Your task to perform on an android device: Open wifi settings Image 0: 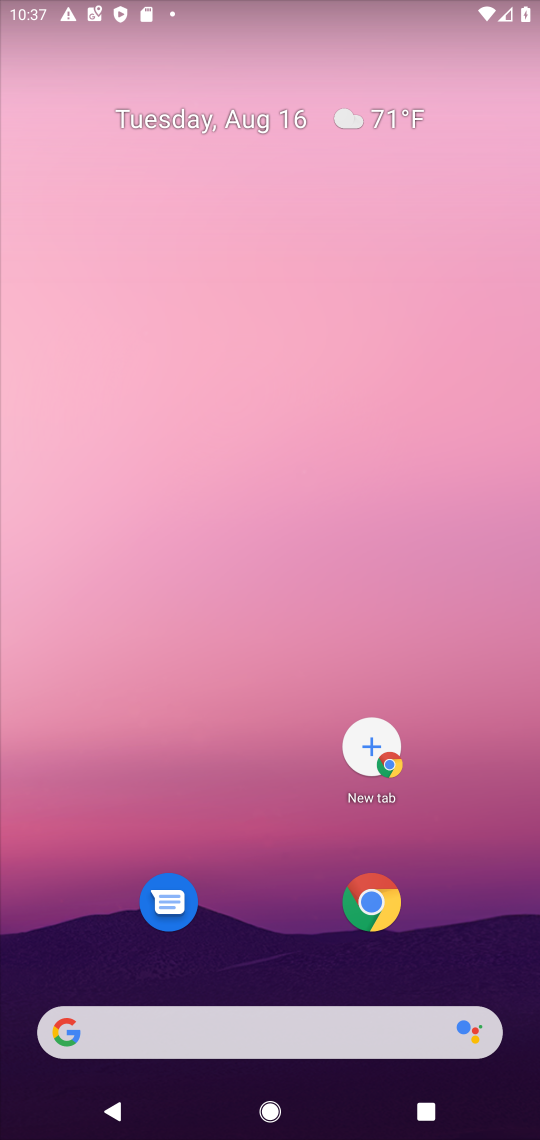
Step 0: drag from (325, 856) to (333, 197)
Your task to perform on an android device: Open wifi settings Image 1: 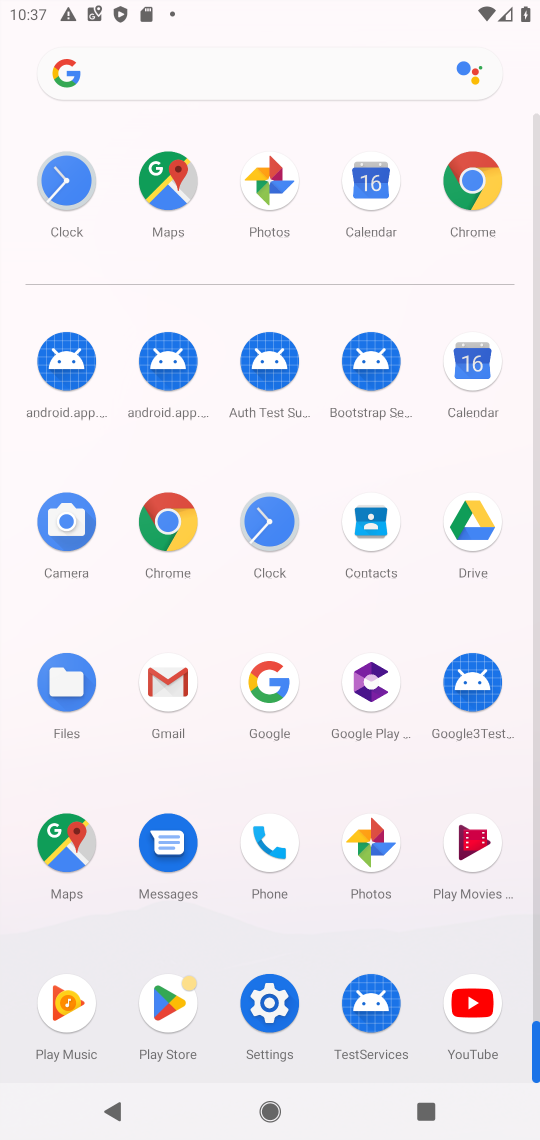
Step 1: click (273, 996)
Your task to perform on an android device: Open wifi settings Image 2: 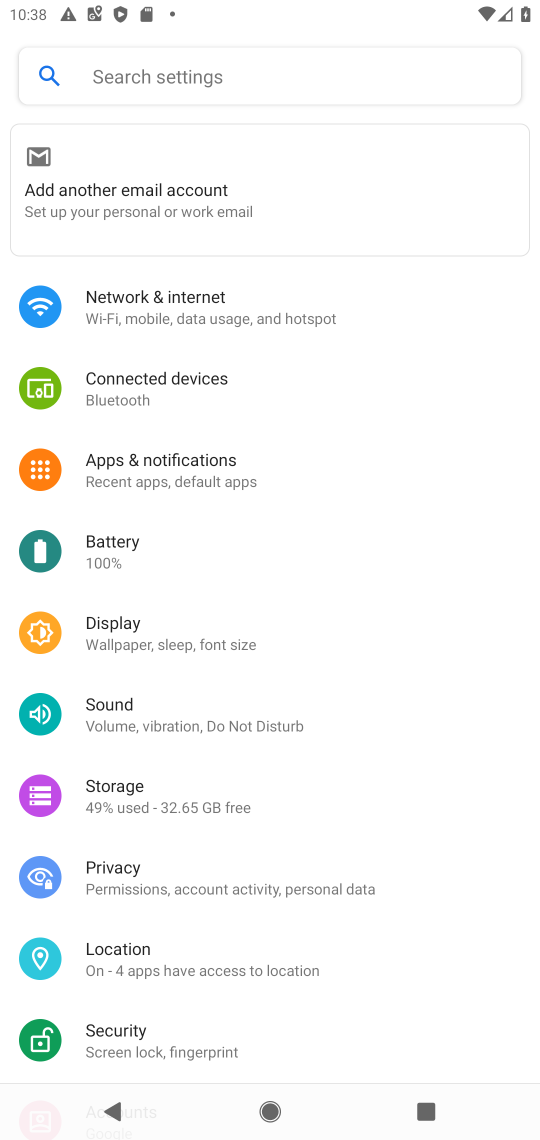
Step 2: click (158, 308)
Your task to perform on an android device: Open wifi settings Image 3: 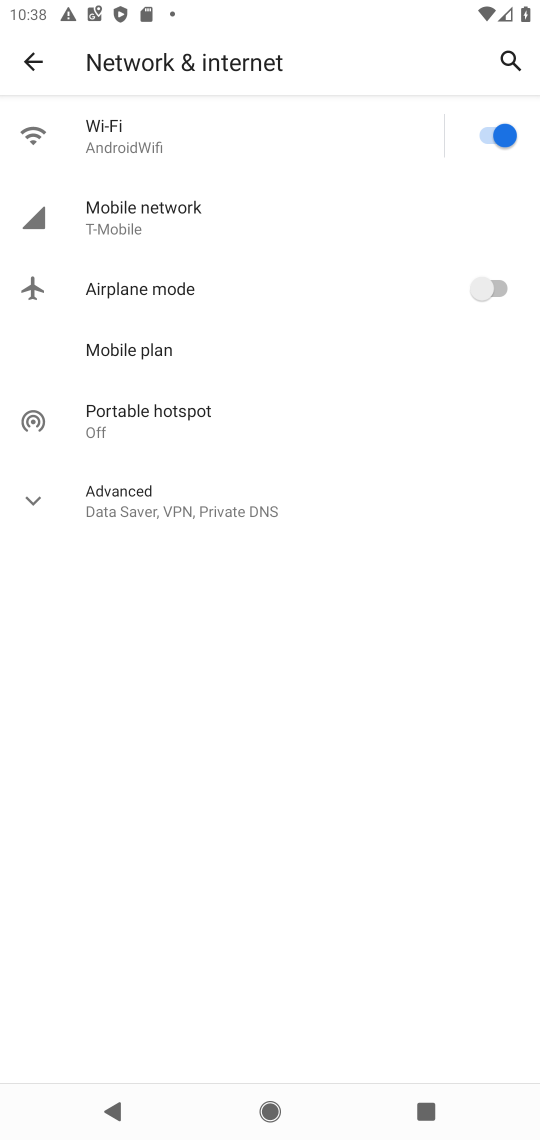
Step 3: click (105, 137)
Your task to perform on an android device: Open wifi settings Image 4: 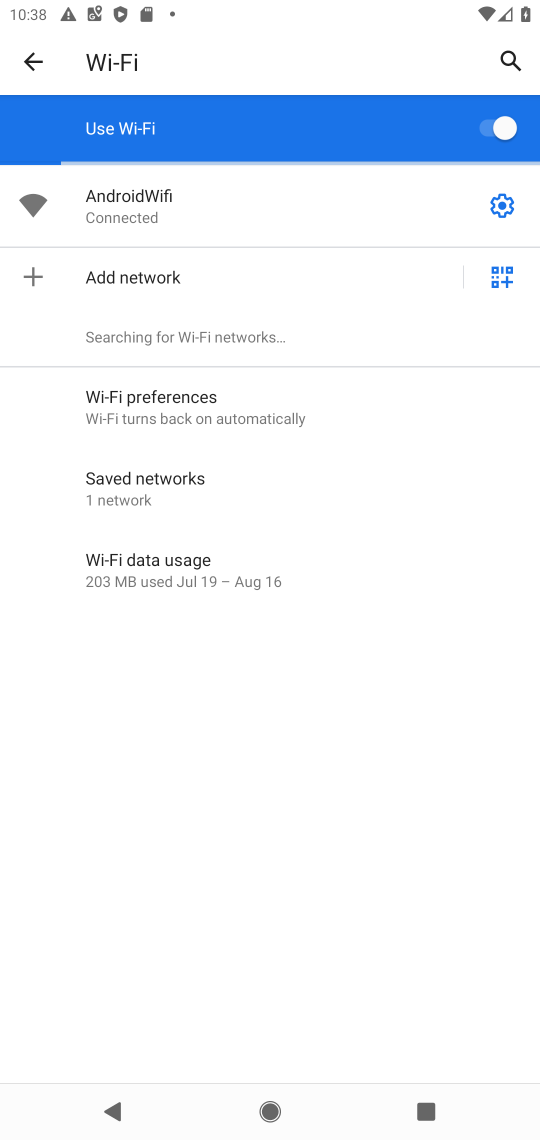
Step 4: click (493, 205)
Your task to perform on an android device: Open wifi settings Image 5: 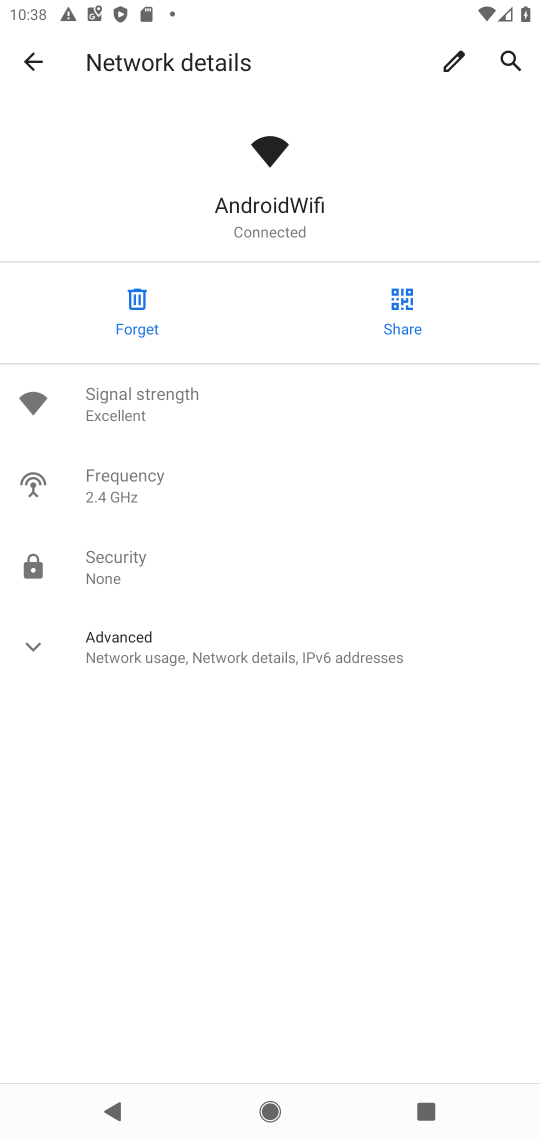
Step 5: click (192, 646)
Your task to perform on an android device: Open wifi settings Image 6: 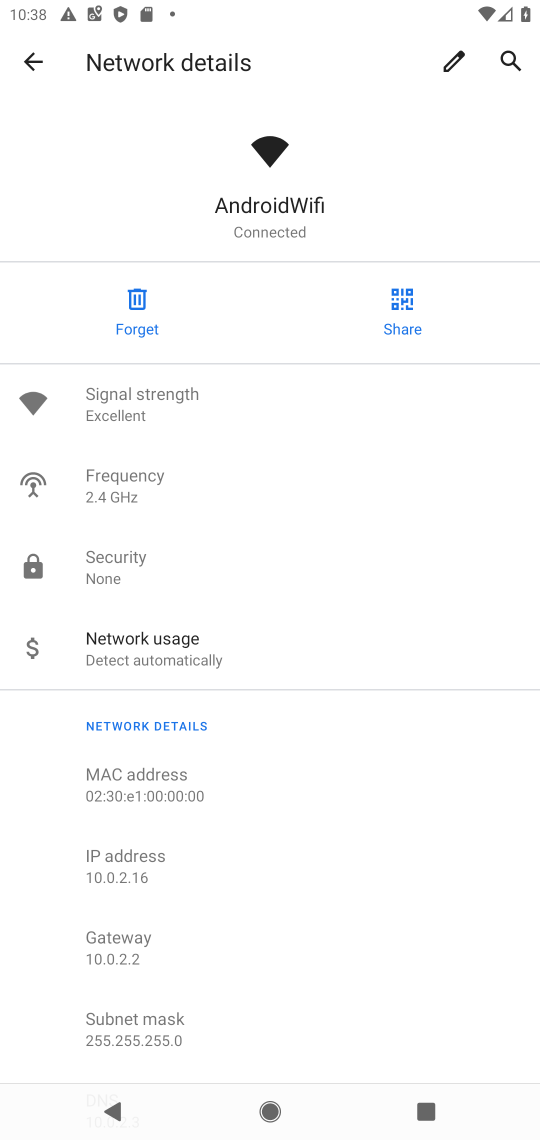
Step 6: task complete